Your task to perform on an android device: turn smart compose on in the gmail app Image 0: 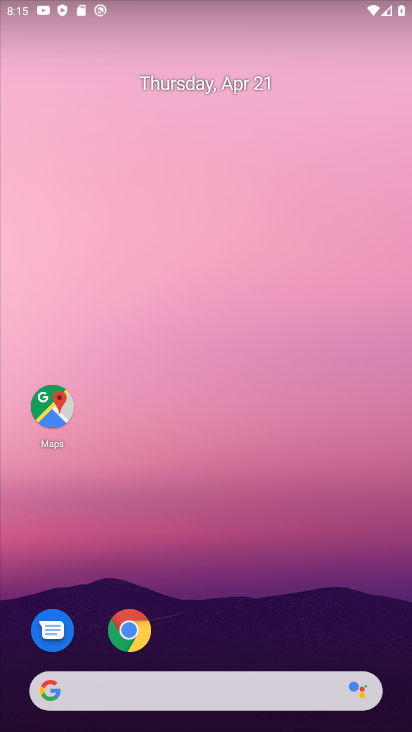
Step 0: drag from (242, 432) to (401, 26)
Your task to perform on an android device: turn smart compose on in the gmail app Image 1: 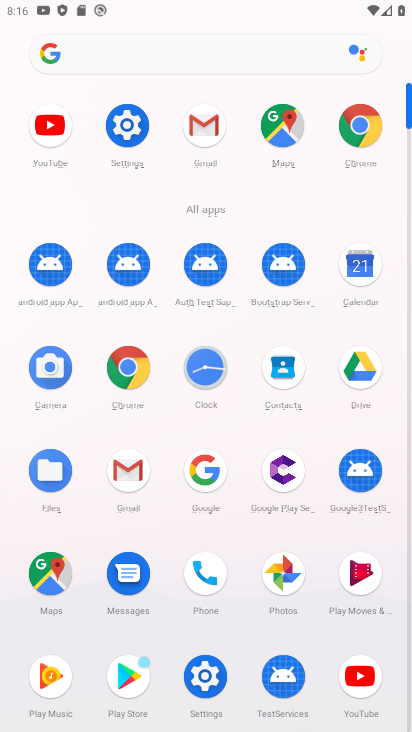
Step 1: click (133, 472)
Your task to perform on an android device: turn smart compose on in the gmail app Image 2: 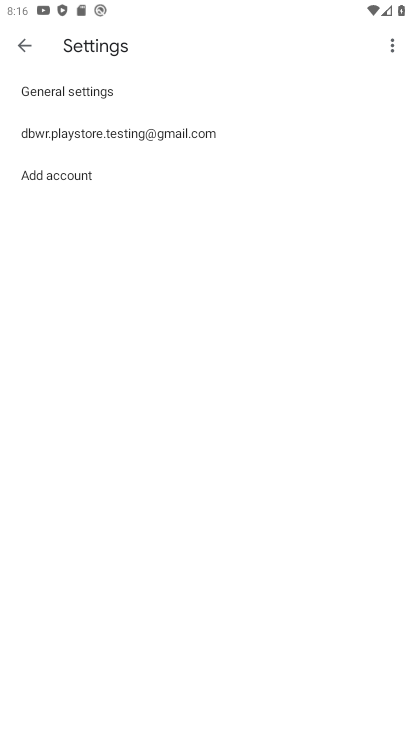
Step 2: click (73, 135)
Your task to perform on an android device: turn smart compose on in the gmail app Image 3: 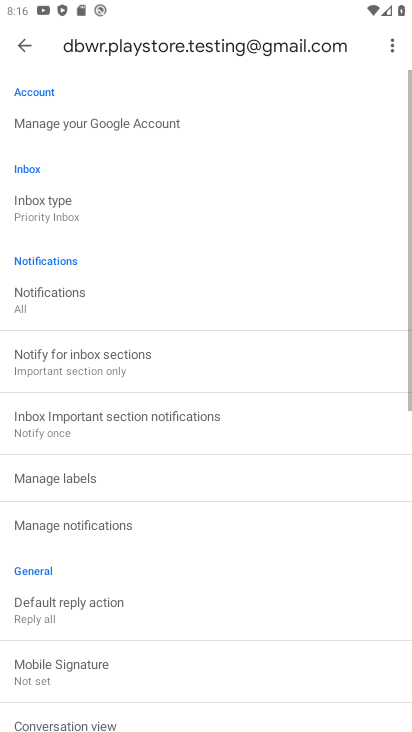
Step 3: task complete